Your task to perform on an android device: change your default location settings in chrome Image 0: 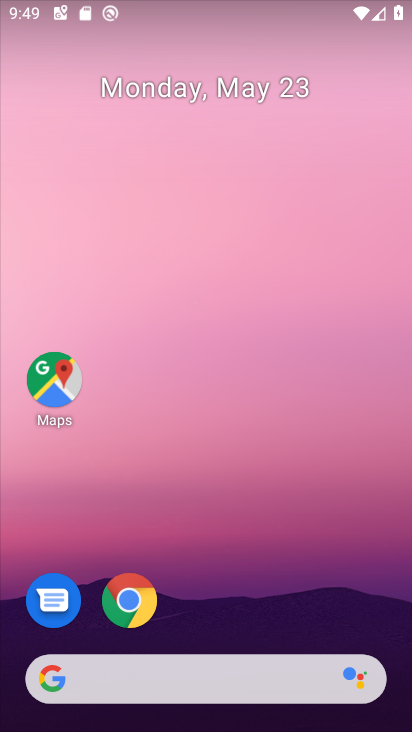
Step 0: drag from (210, 728) to (214, 56)
Your task to perform on an android device: change your default location settings in chrome Image 1: 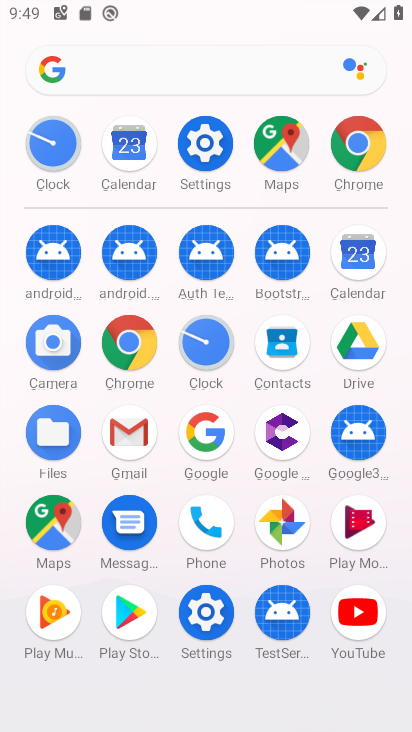
Step 1: click (128, 339)
Your task to perform on an android device: change your default location settings in chrome Image 2: 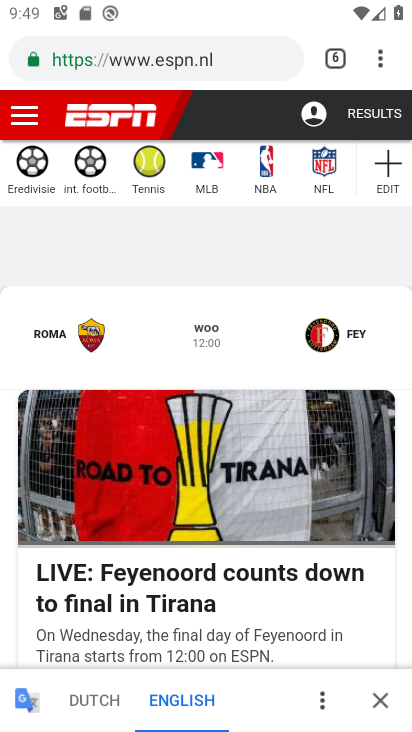
Step 2: click (381, 64)
Your task to perform on an android device: change your default location settings in chrome Image 3: 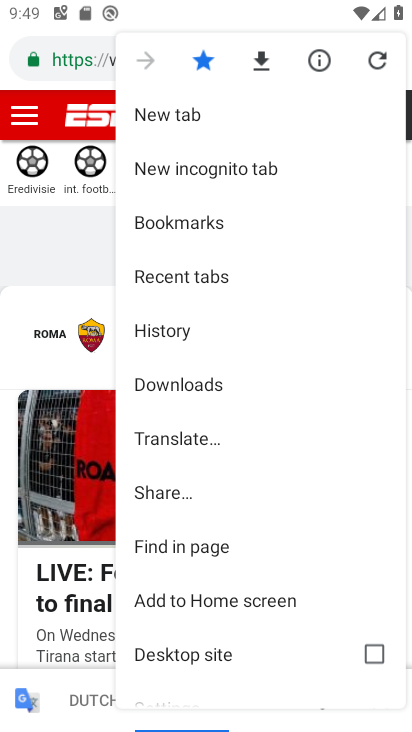
Step 3: drag from (223, 645) to (220, 249)
Your task to perform on an android device: change your default location settings in chrome Image 4: 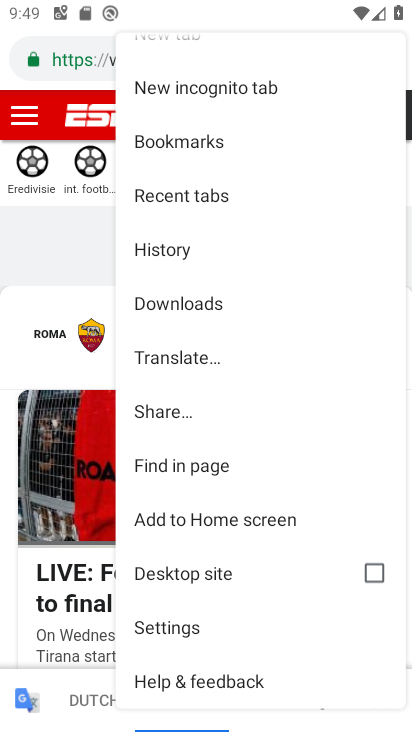
Step 4: click (182, 628)
Your task to perform on an android device: change your default location settings in chrome Image 5: 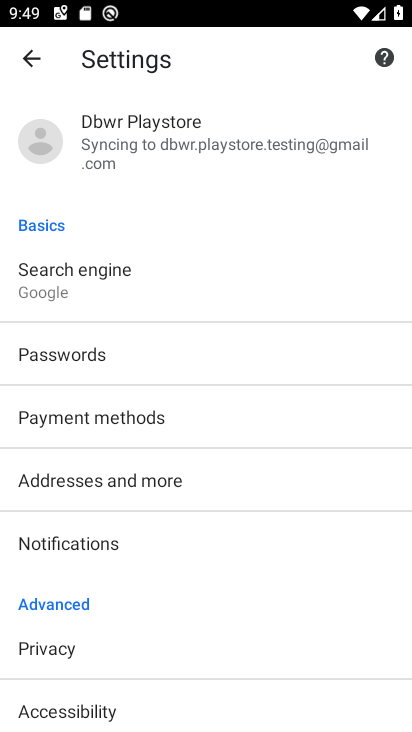
Step 5: drag from (130, 678) to (164, 433)
Your task to perform on an android device: change your default location settings in chrome Image 6: 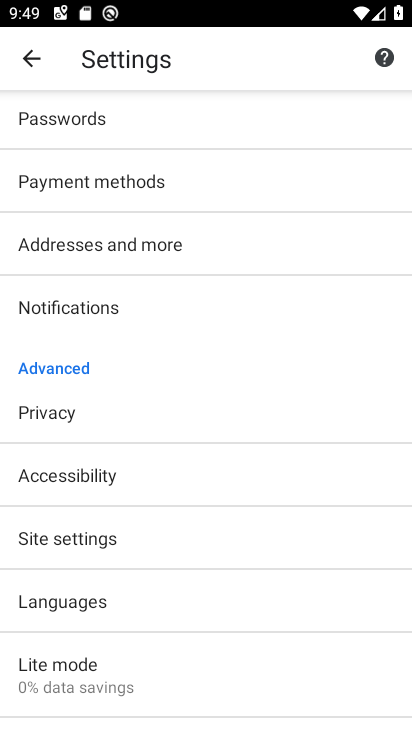
Step 6: click (76, 536)
Your task to perform on an android device: change your default location settings in chrome Image 7: 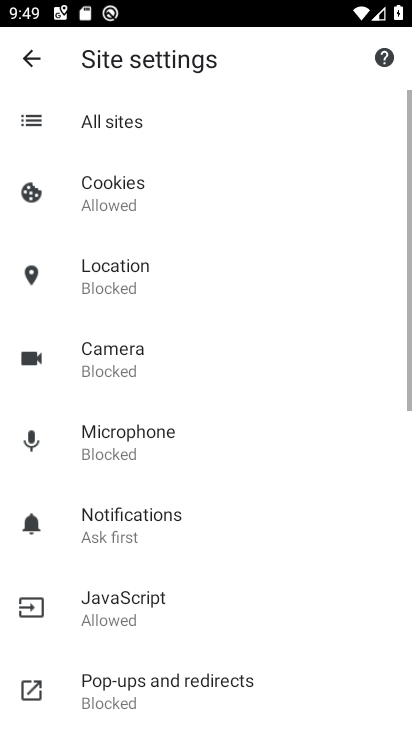
Step 7: click (101, 280)
Your task to perform on an android device: change your default location settings in chrome Image 8: 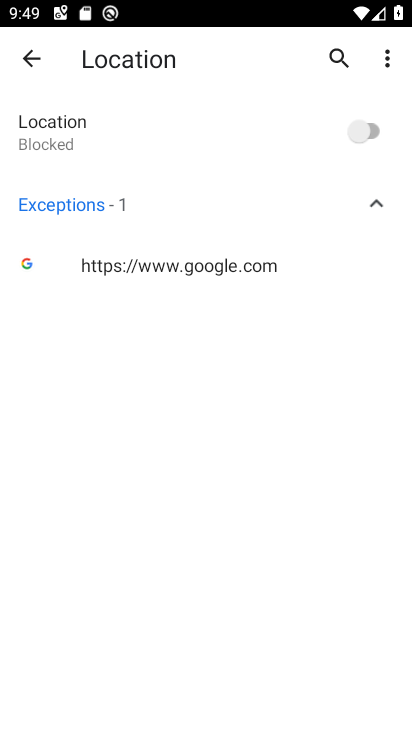
Step 8: click (376, 131)
Your task to perform on an android device: change your default location settings in chrome Image 9: 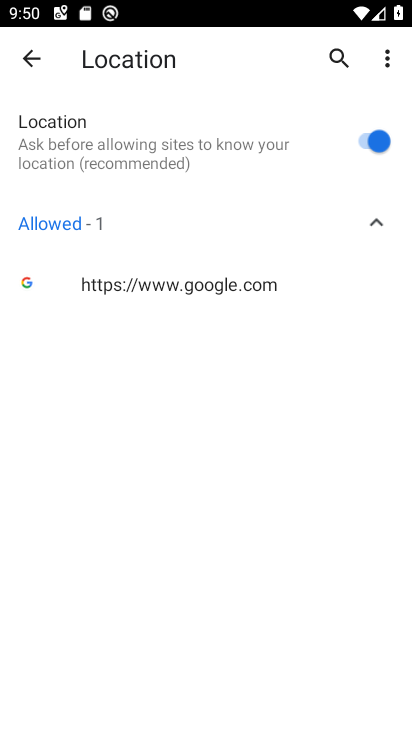
Step 9: task complete